Your task to perform on an android device: Add "usb-a to usb-b" to the cart on bestbuy.com, then select checkout. Image 0: 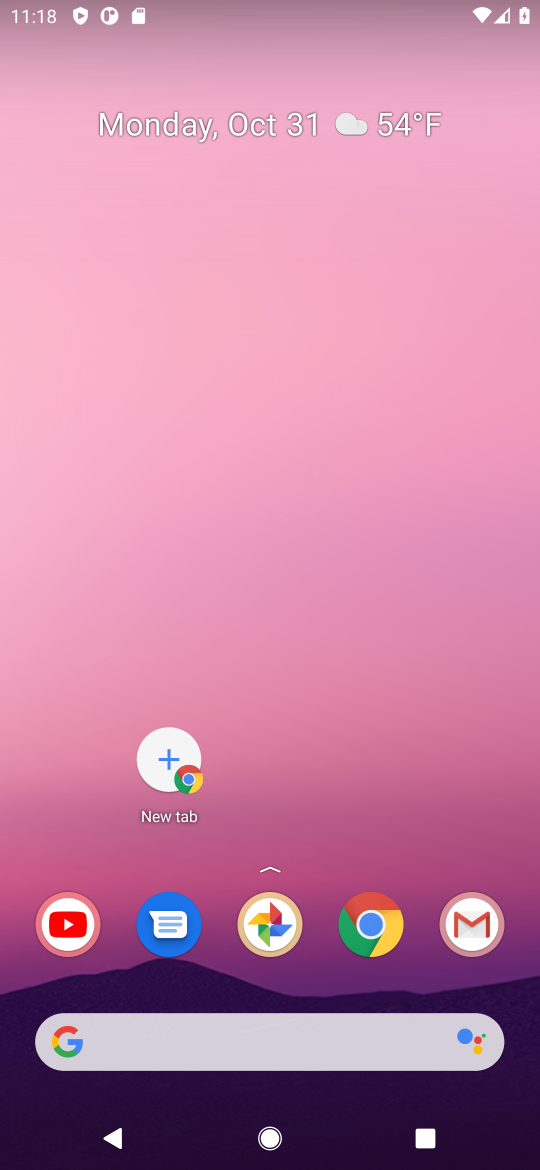
Step 0: click (371, 945)
Your task to perform on an android device: Add "usb-a to usb-b" to the cart on bestbuy.com, then select checkout. Image 1: 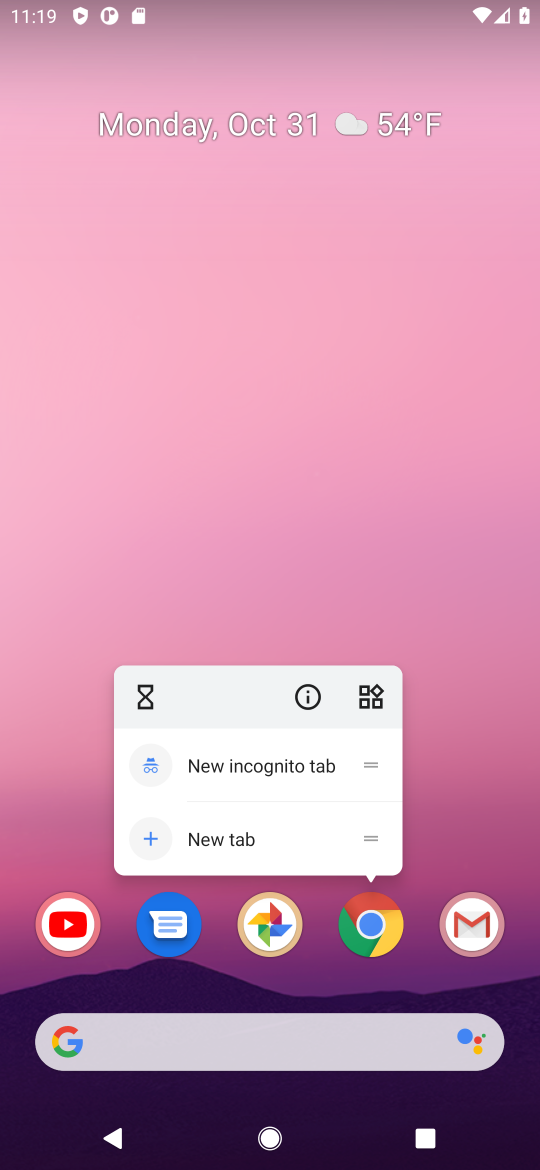
Step 1: click (388, 910)
Your task to perform on an android device: Add "usb-a to usb-b" to the cart on bestbuy.com, then select checkout. Image 2: 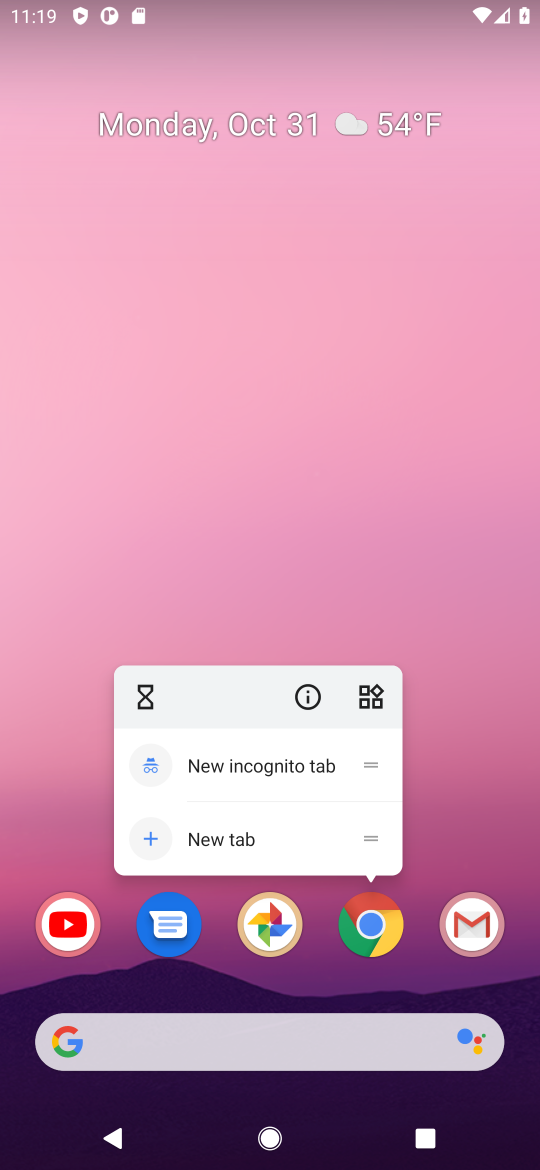
Step 2: click (347, 924)
Your task to perform on an android device: Add "usb-a to usb-b" to the cart on bestbuy.com, then select checkout. Image 3: 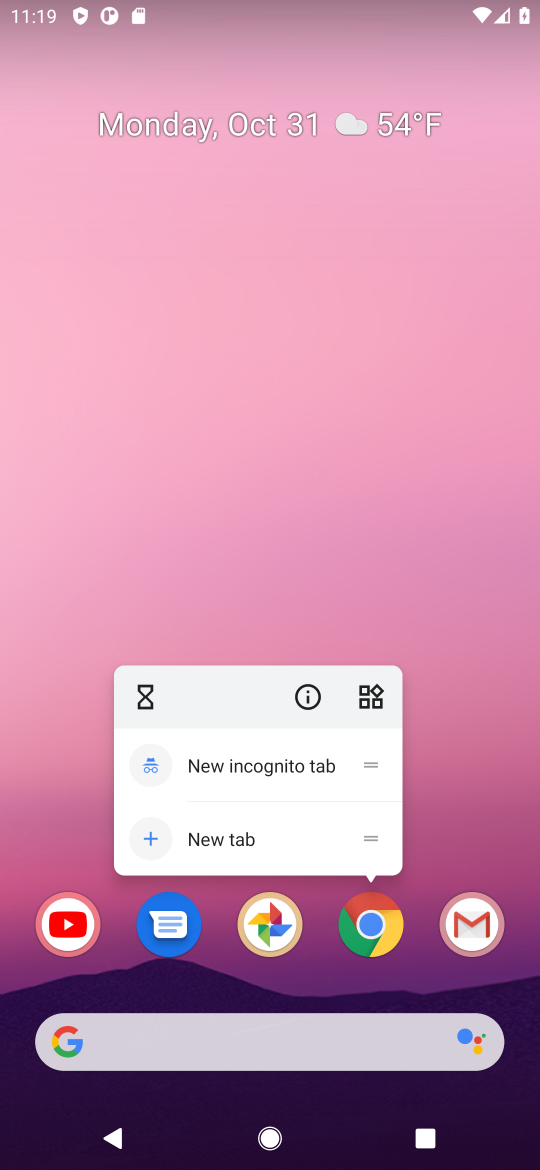
Step 3: click (351, 924)
Your task to perform on an android device: Add "usb-a to usb-b" to the cart on bestbuy.com, then select checkout. Image 4: 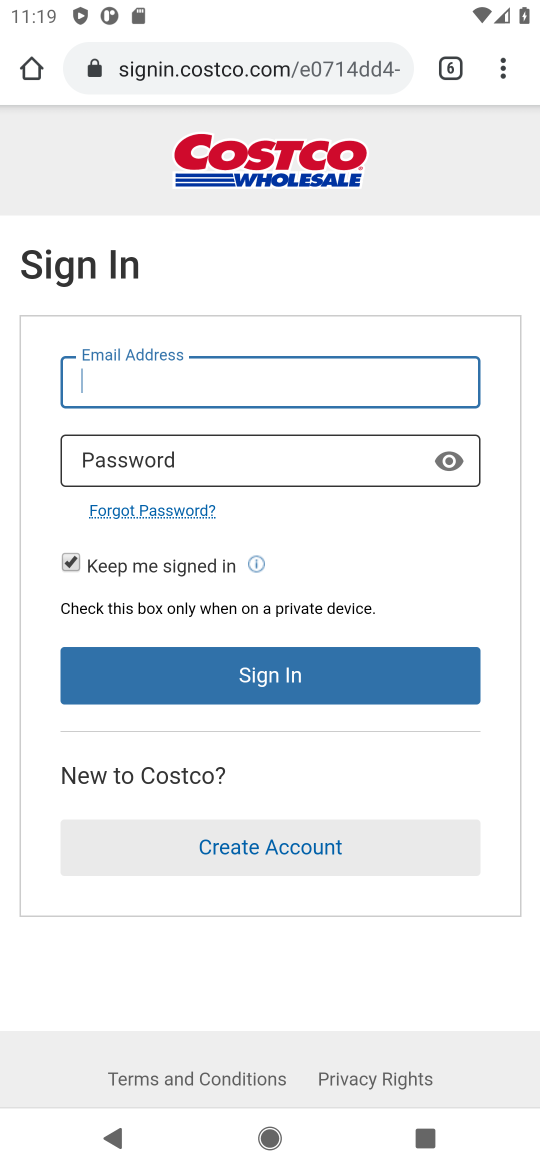
Step 4: click (231, 65)
Your task to perform on an android device: Add "usb-a to usb-b" to the cart on bestbuy.com, then select checkout. Image 5: 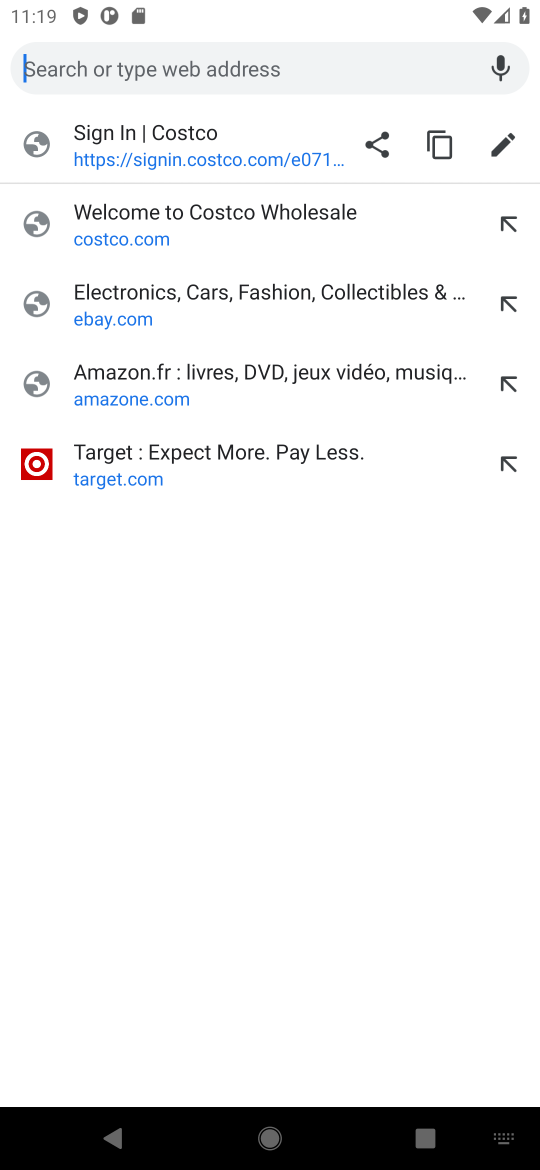
Step 5: type "best buy"
Your task to perform on an android device: Add "usb-a to usb-b" to the cart on bestbuy.com, then select checkout. Image 6: 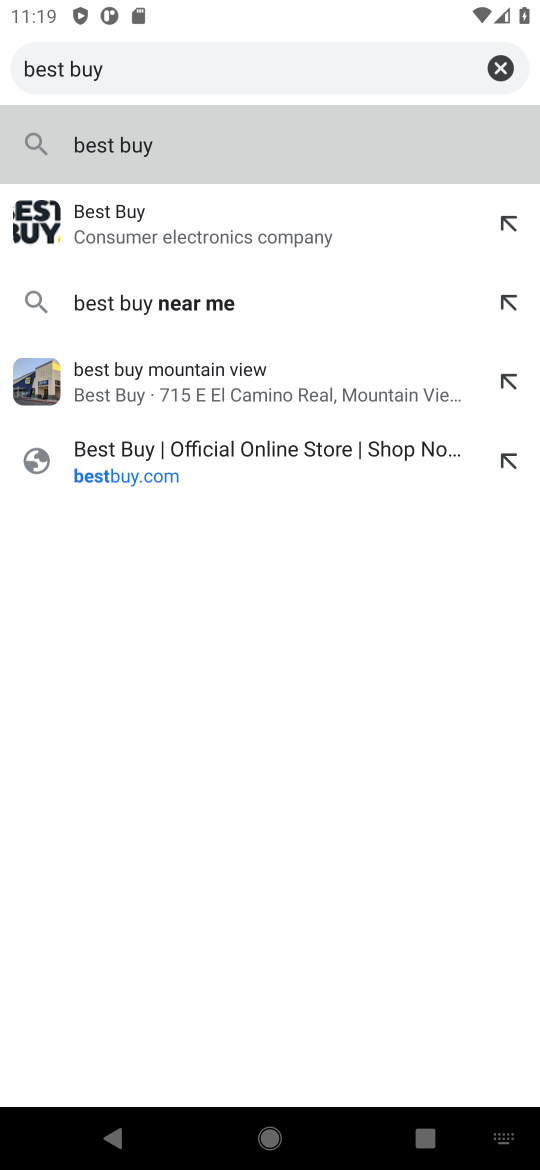
Step 6: type ""
Your task to perform on an android device: Add "usb-a to usb-b" to the cart on bestbuy.com, then select checkout. Image 7: 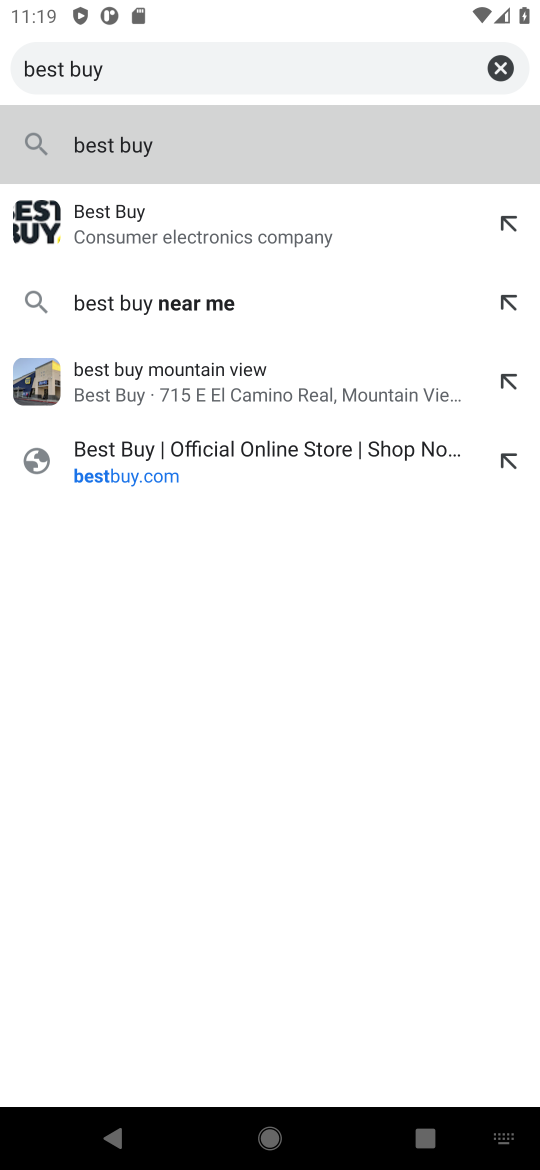
Step 7: click (208, 239)
Your task to perform on an android device: Add "usb-a to usb-b" to the cart on bestbuy.com, then select checkout. Image 8: 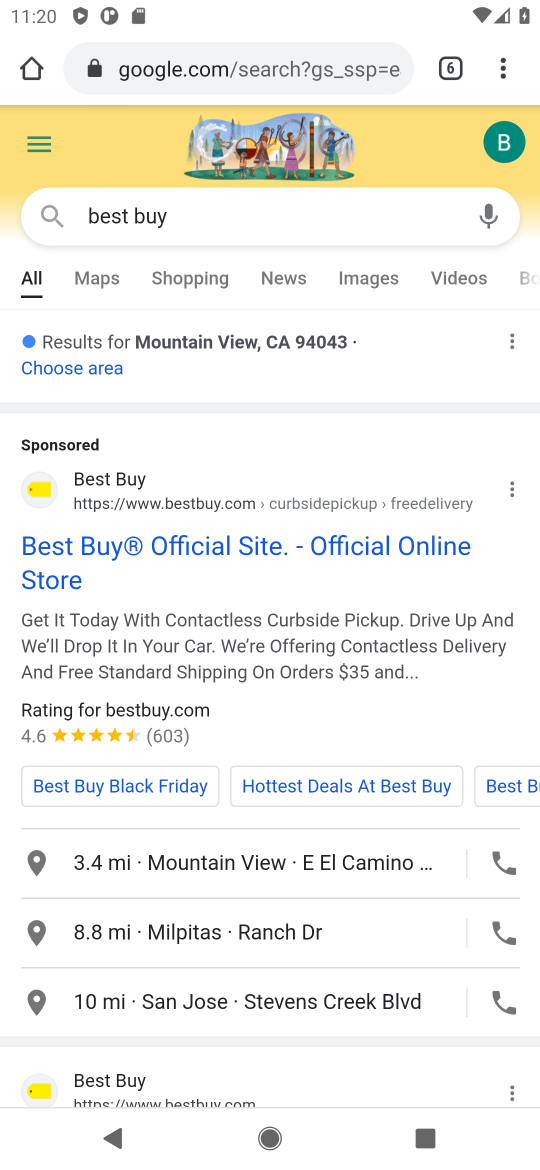
Step 8: click (56, 541)
Your task to perform on an android device: Add "usb-a to usb-b" to the cart on bestbuy.com, then select checkout. Image 9: 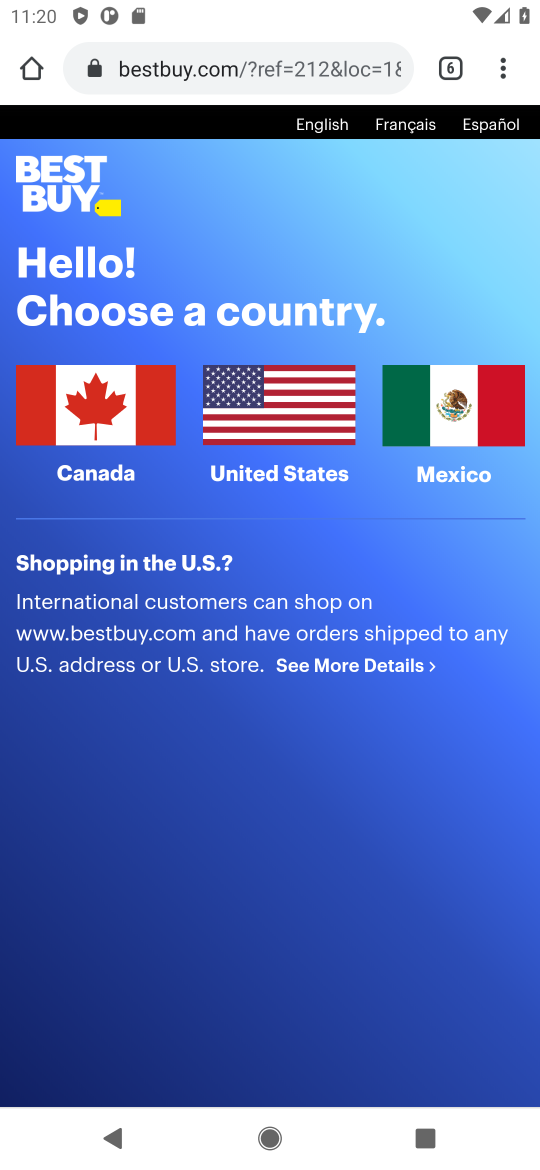
Step 9: click (45, 413)
Your task to perform on an android device: Add "usb-a to usb-b" to the cart on bestbuy.com, then select checkout. Image 10: 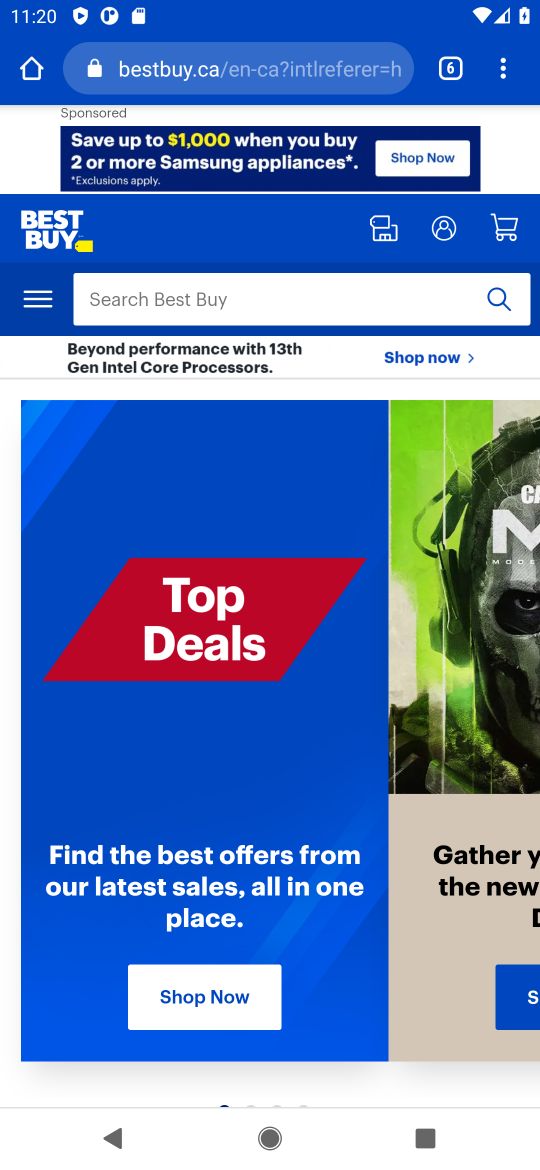
Step 10: click (127, 292)
Your task to perform on an android device: Add "usb-a to usb-b" to the cart on bestbuy.com, then select checkout. Image 11: 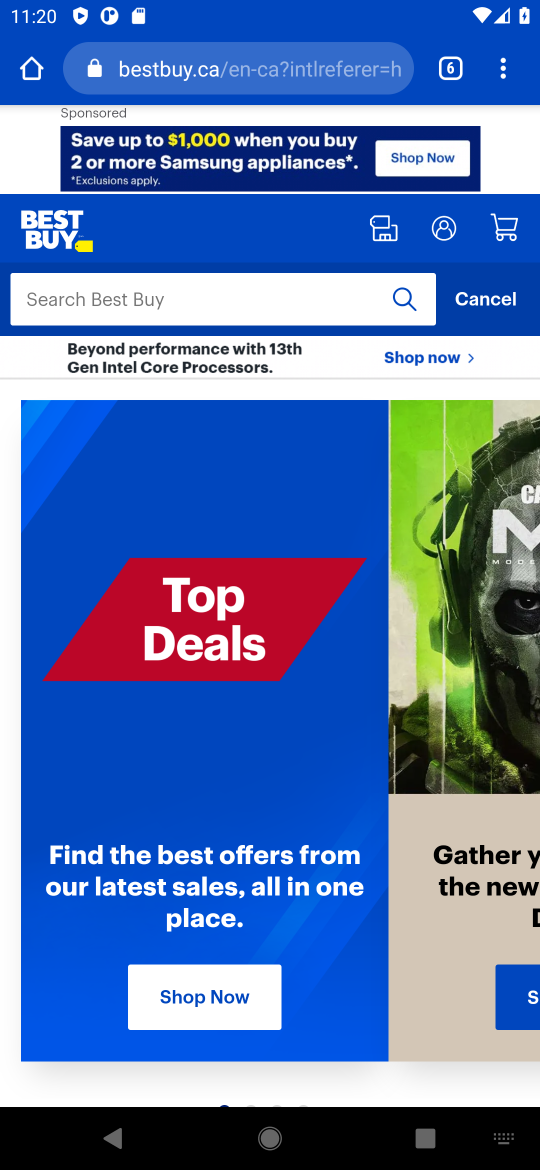
Step 11: type "usb a to usb b "
Your task to perform on an android device: Add "usb-a to usb-b" to the cart on bestbuy.com, then select checkout. Image 12: 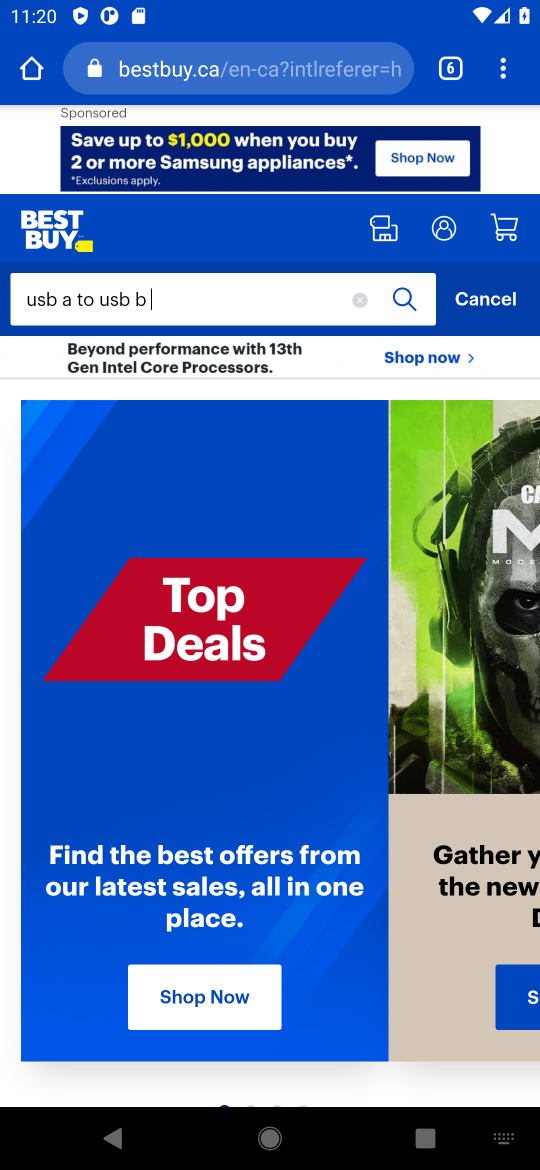
Step 12: type ""
Your task to perform on an android device: Add "usb-a to usb-b" to the cart on bestbuy.com, then select checkout. Image 13: 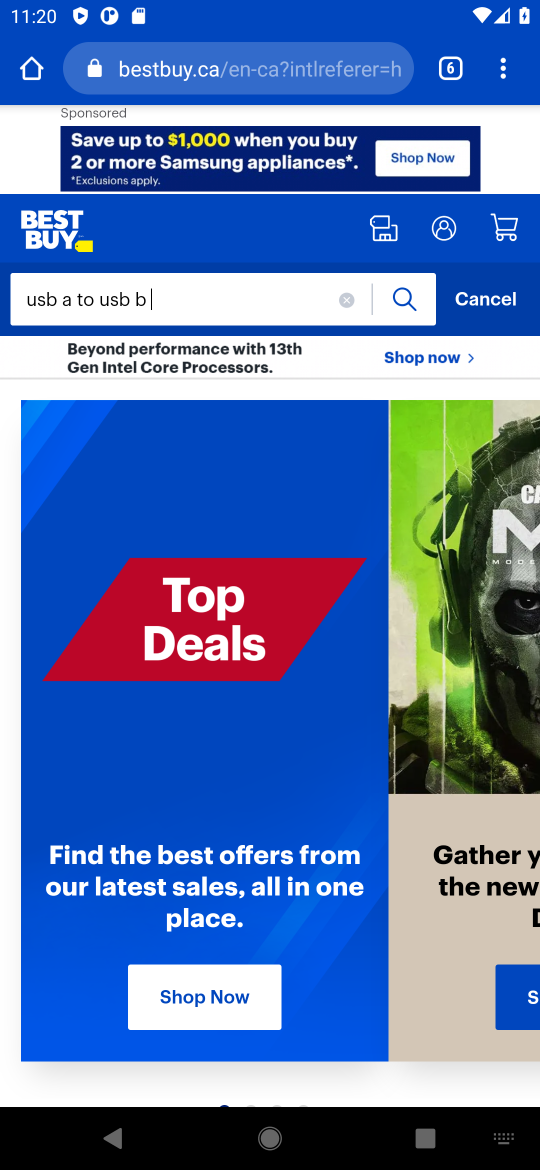
Step 13: click (408, 302)
Your task to perform on an android device: Add "usb-a to usb-b" to the cart on bestbuy.com, then select checkout. Image 14: 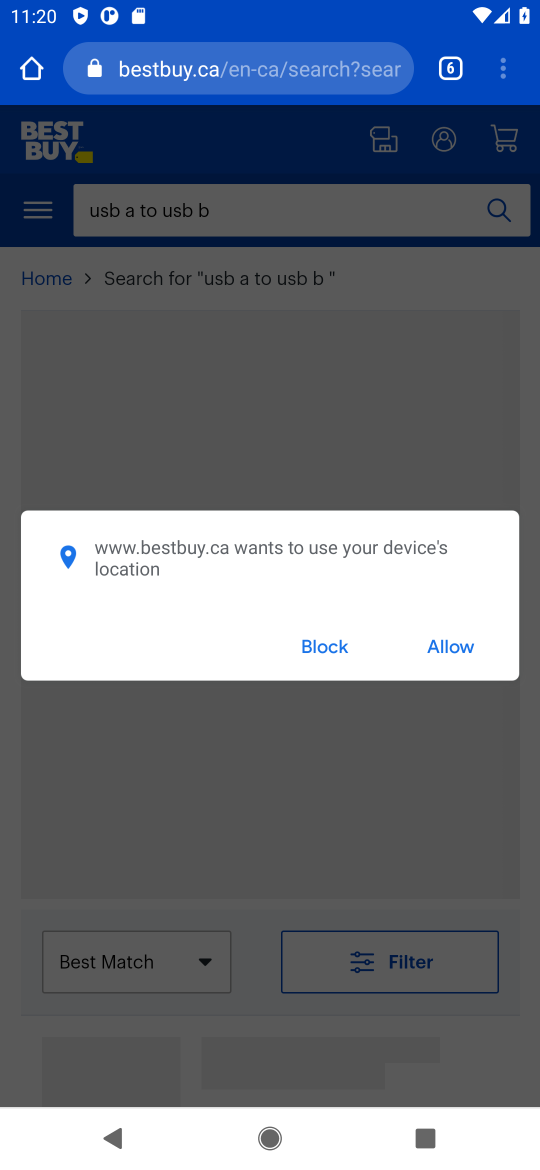
Step 14: click (434, 640)
Your task to perform on an android device: Add "usb-a to usb-b" to the cart on bestbuy.com, then select checkout. Image 15: 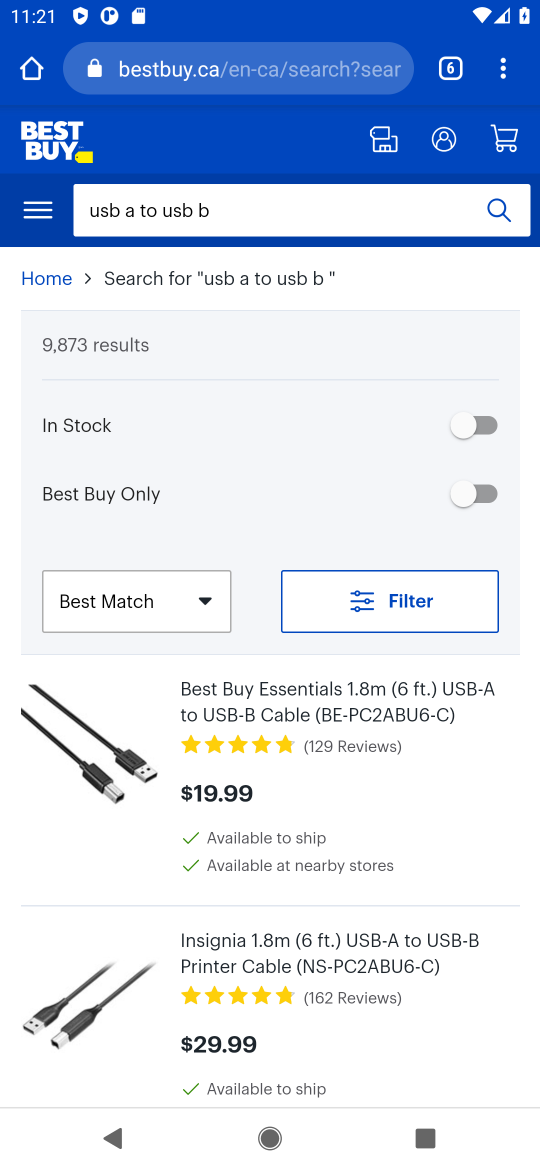
Step 15: drag from (346, 886) to (358, 216)
Your task to perform on an android device: Add "usb-a to usb-b" to the cart on bestbuy.com, then select checkout. Image 16: 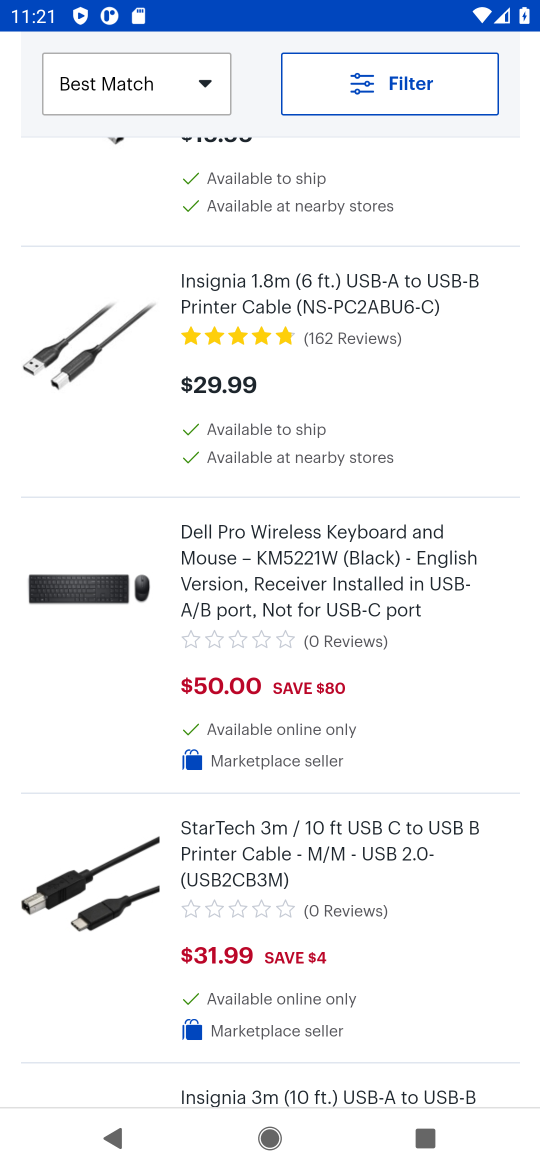
Step 16: click (37, 600)
Your task to perform on an android device: Add "usb-a to usb-b" to the cart on bestbuy.com, then select checkout. Image 17: 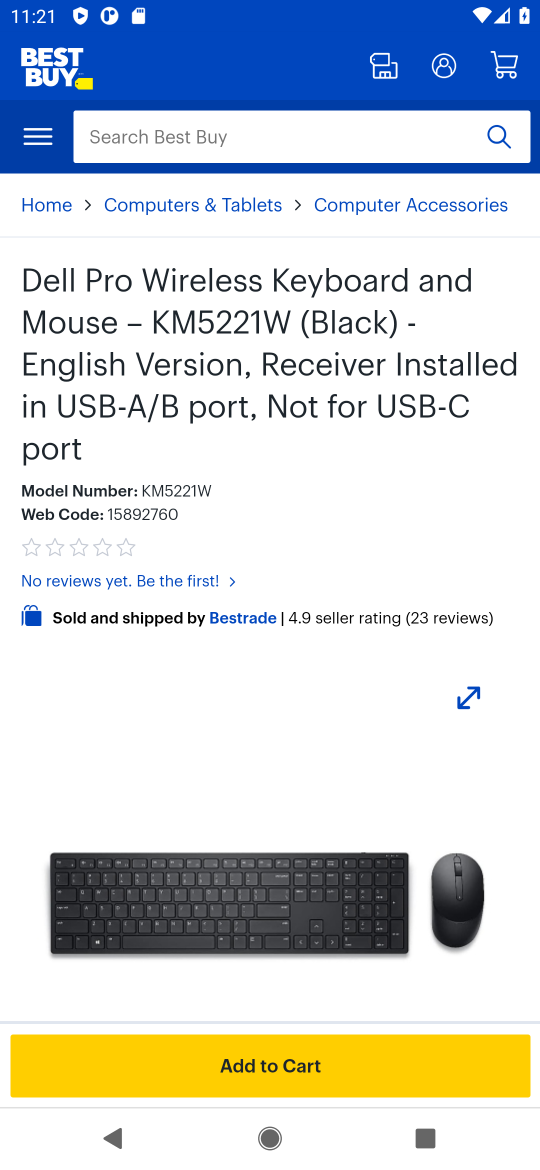
Step 17: drag from (214, 865) to (185, 267)
Your task to perform on an android device: Add "usb-a to usb-b" to the cart on bestbuy.com, then select checkout. Image 18: 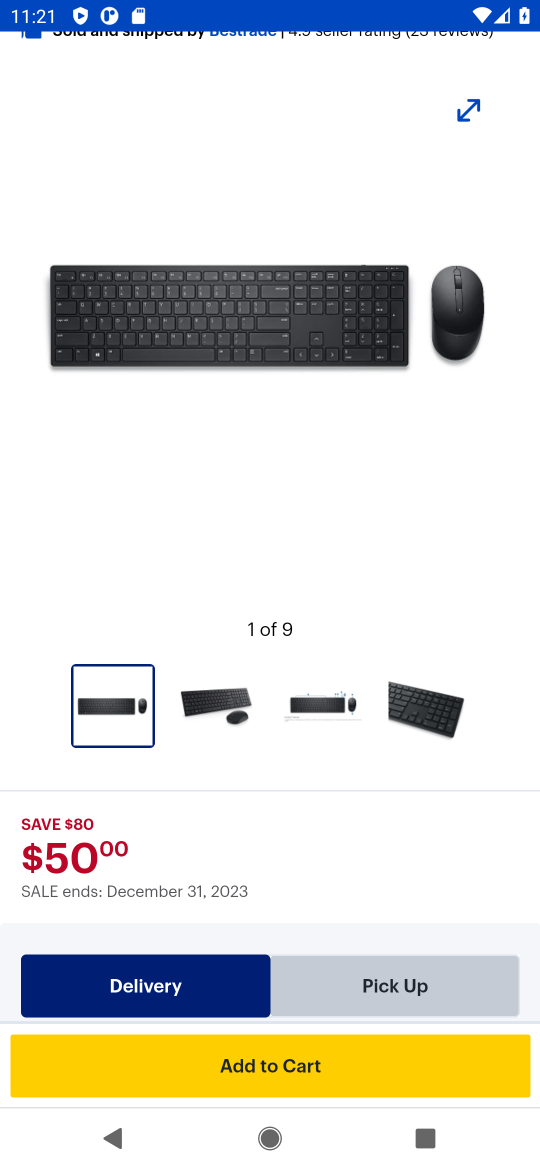
Step 18: click (195, 1070)
Your task to perform on an android device: Add "usb-a to usb-b" to the cart on bestbuy.com, then select checkout. Image 19: 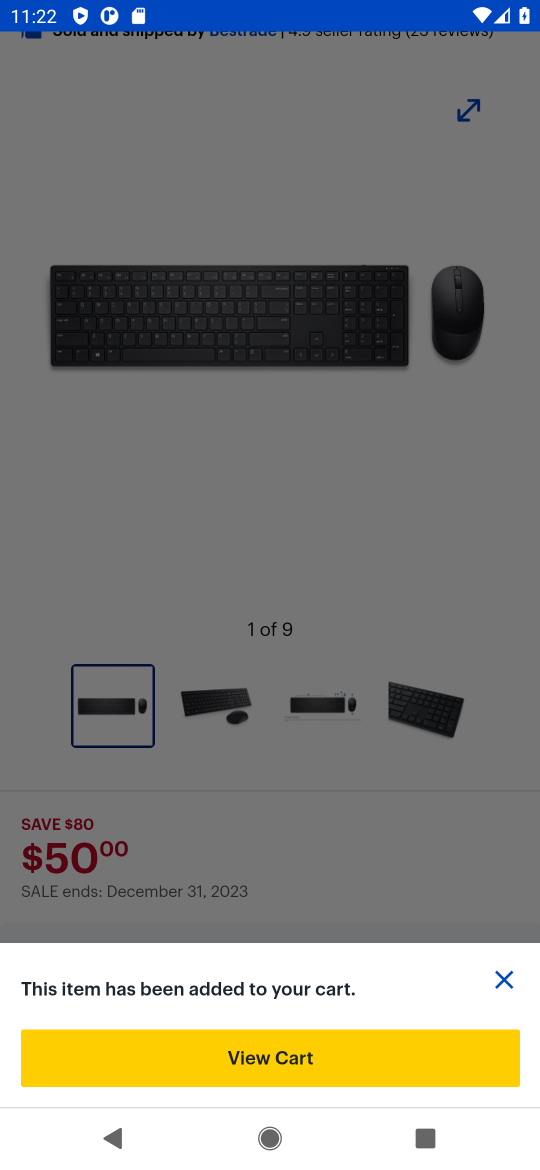
Step 19: click (195, 1070)
Your task to perform on an android device: Add "usb-a to usb-b" to the cart on bestbuy.com, then select checkout. Image 20: 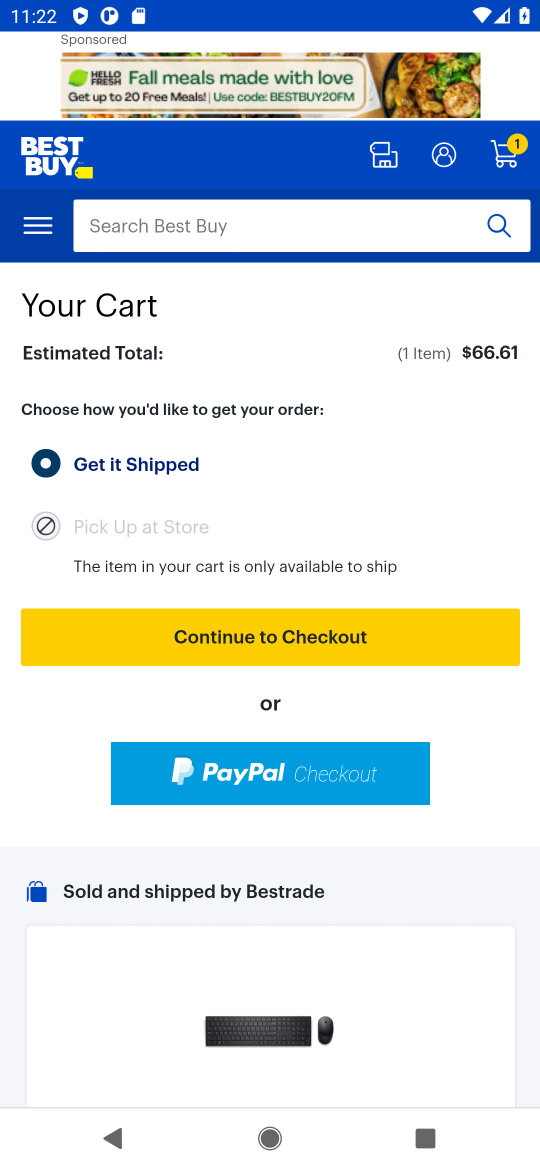
Step 20: click (234, 646)
Your task to perform on an android device: Add "usb-a to usb-b" to the cart on bestbuy.com, then select checkout. Image 21: 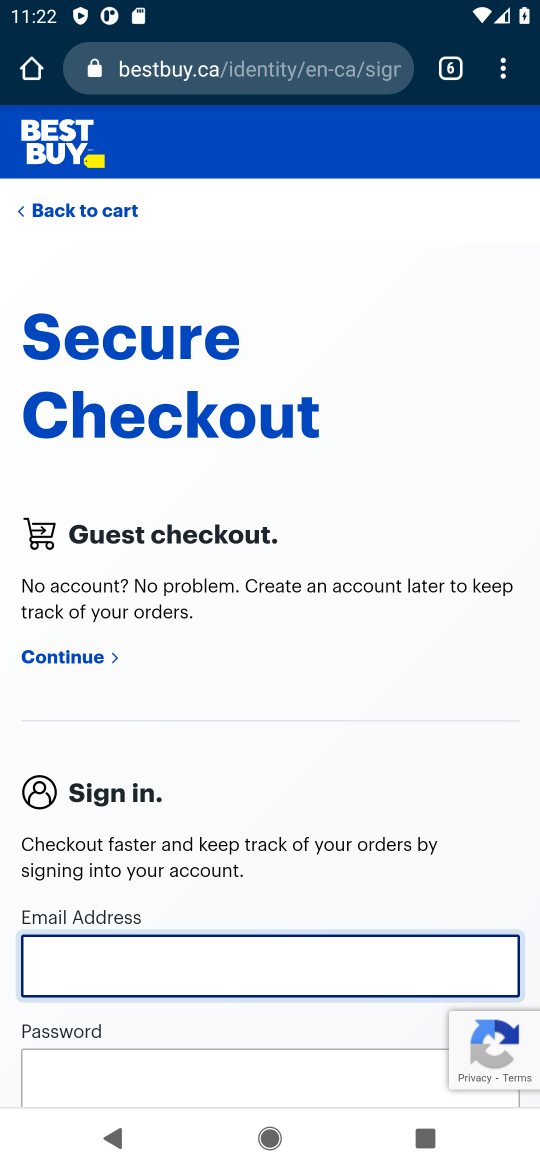
Step 21: task complete